Your task to perform on an android device: open app "Adobe Acrobat Reader" (install if not already installed) Image 0: 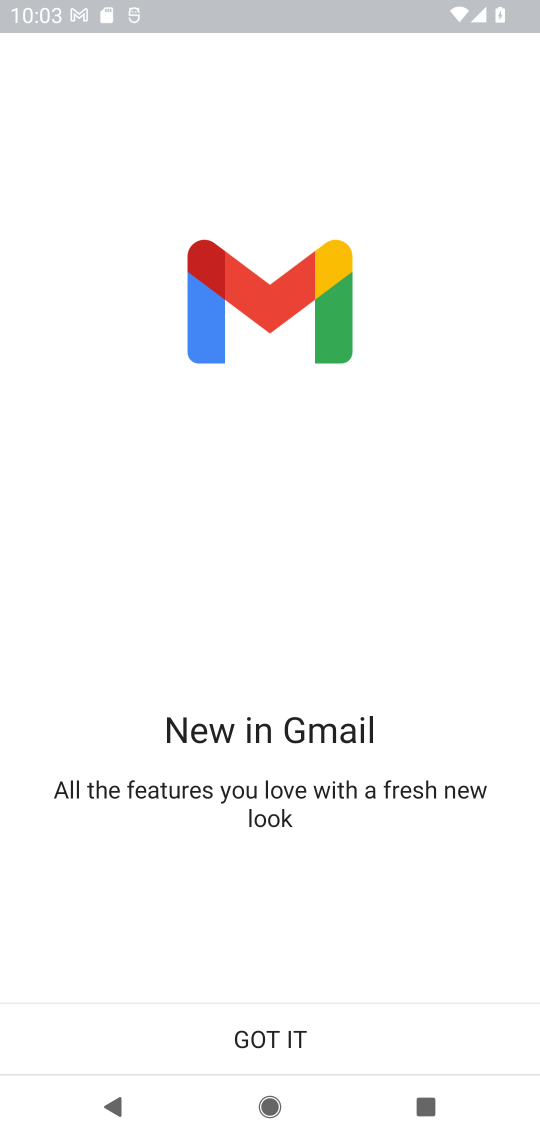
Step 0: press home button
Your task to perform on an android device: open app "Adobe Acrobat Reader" (install if not already installed) Image 1: 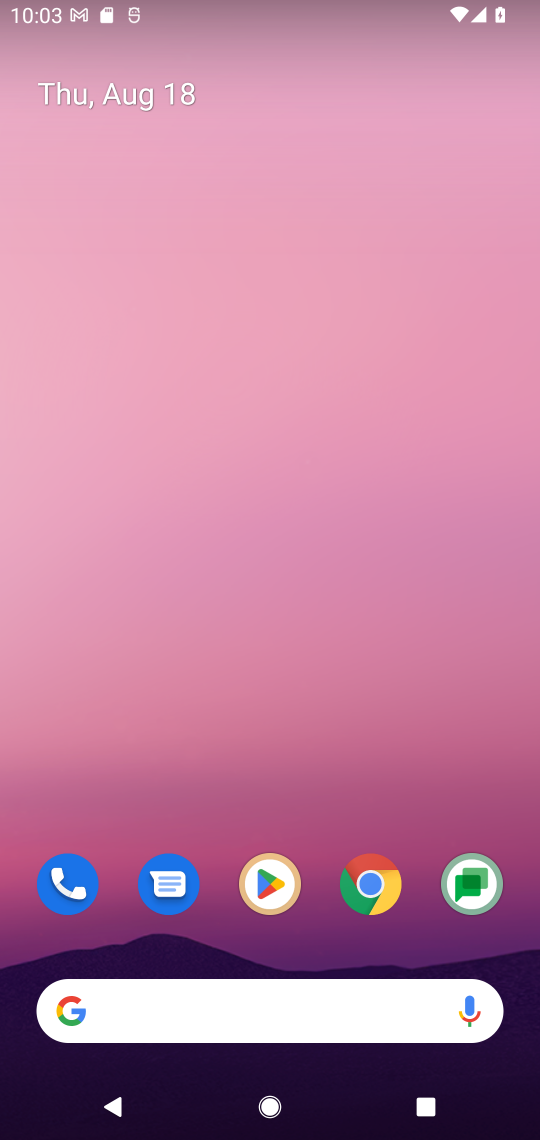
Step 1: click (349, 899)
Your task to perform on an android device: open app "Adobe Acrobat Reader" (install if not already installed) Image 2: 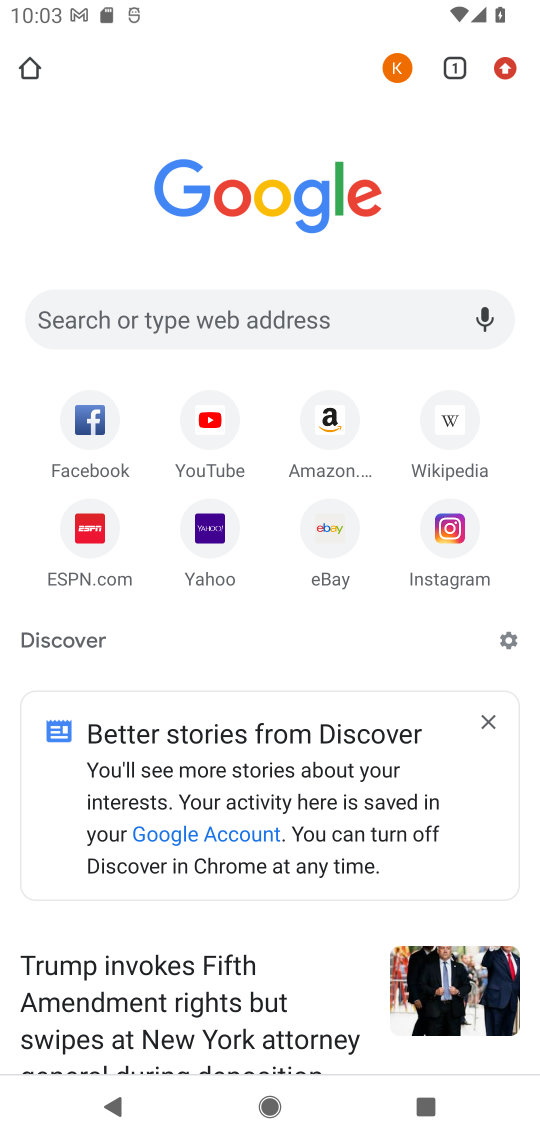
Step 2: press home button
Your task to perform on an android device: open app "Adobe Acrobat Reader" (install if not already installed) Image 3: 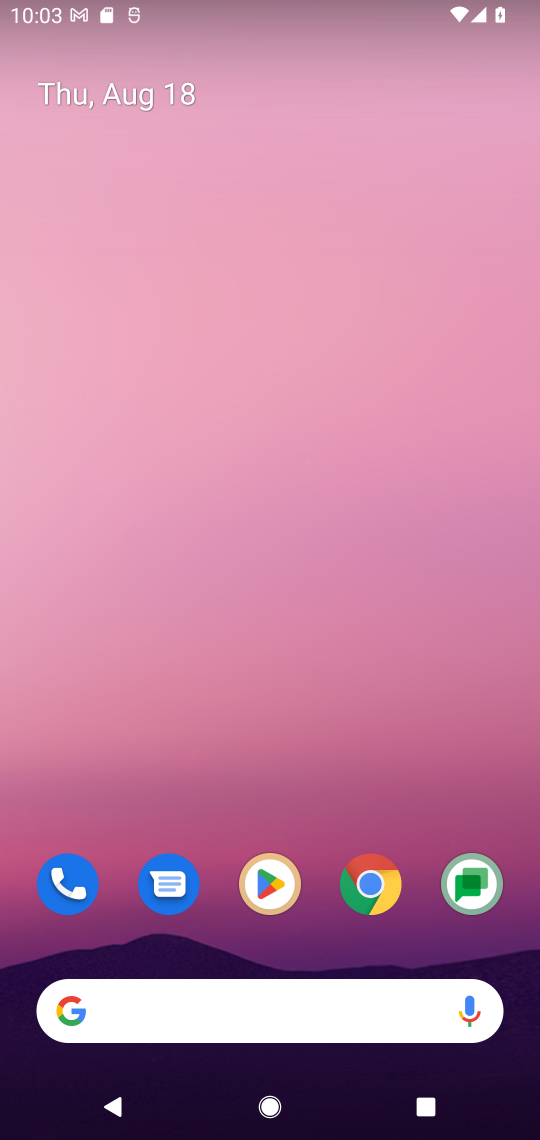
Step 3: click (260, 882)
Your task to perform on an android device: open app "Adobe Acrobat Reader" (install if not already installed) Image 4: 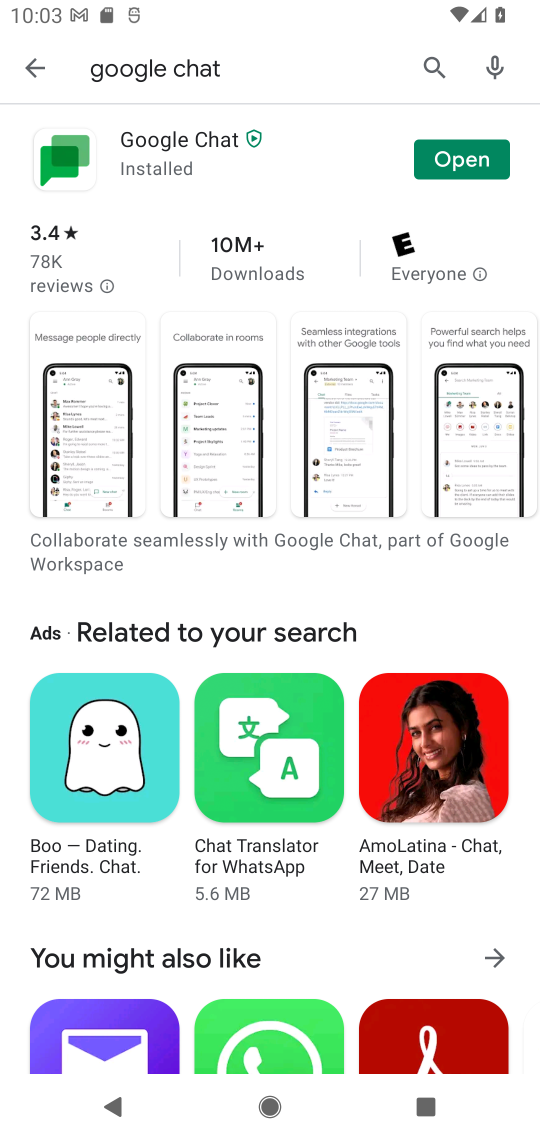
Step 4: click (441, 61)
Your task to perform on an android device: open app "Adobe Acrobat Reader" (install if not already installed) Image 5: 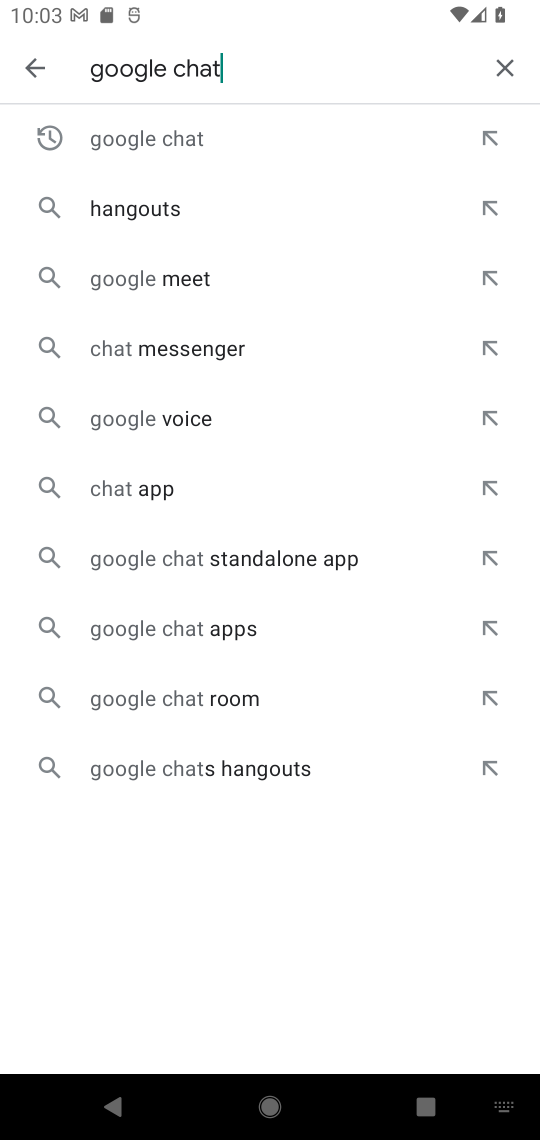
Step 5: click (497, 66)
Your task to perform on an android device: open app "Adobe Acrobat Reader" (install if not already installed) Image 6: 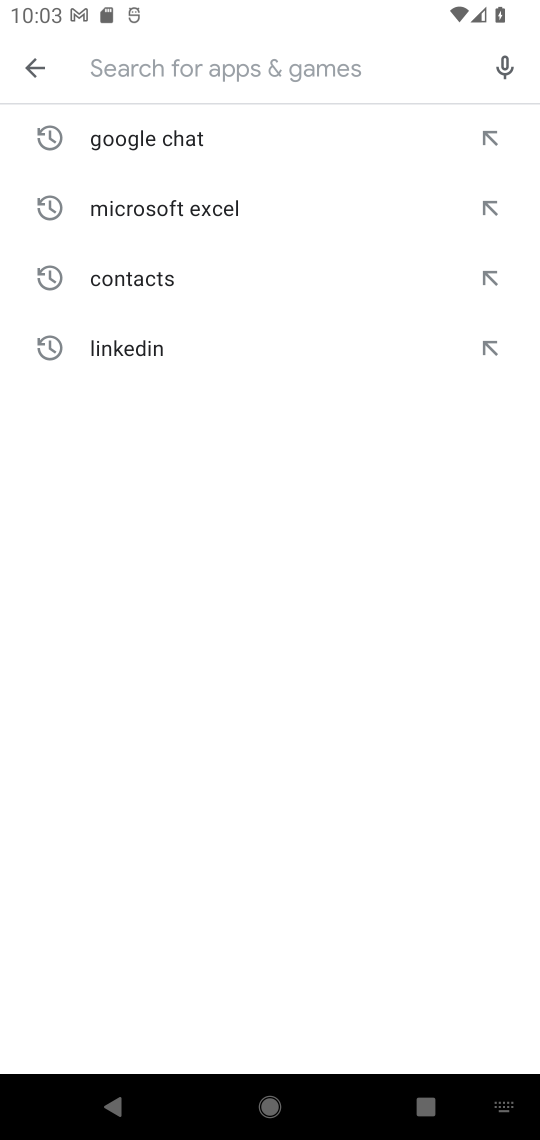
Step 6: type "adobe acrobat reader"
Your task to perform on an android device: open app "Adobe Acrobat Reader" (install if not already installed) Image 7: 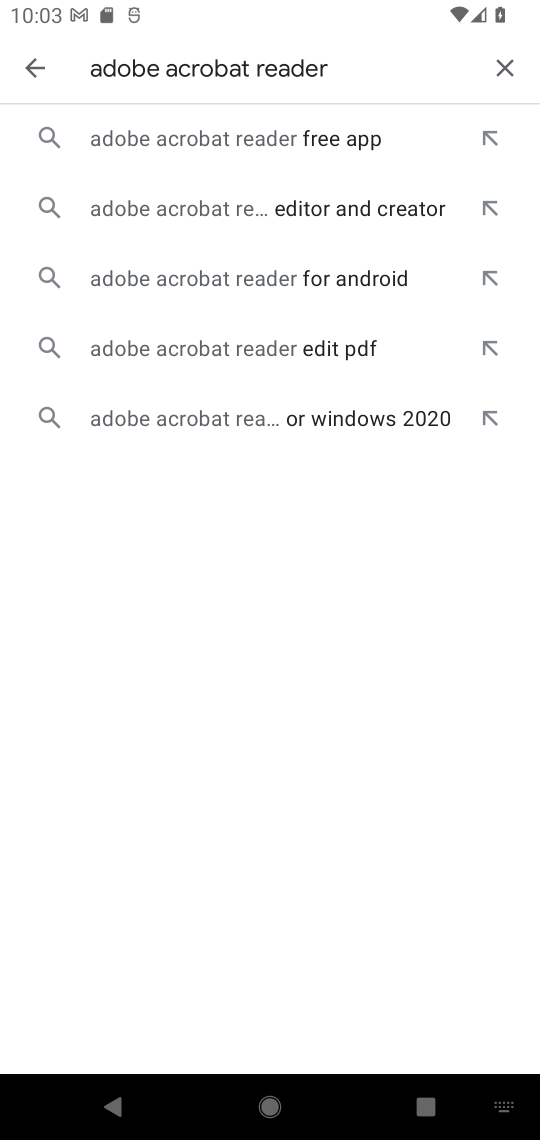
Step 7: click (191, 119)
Your task to perform on an android device: open app "Adobe Acrobat Reader" (install if not already installed) Image 8: 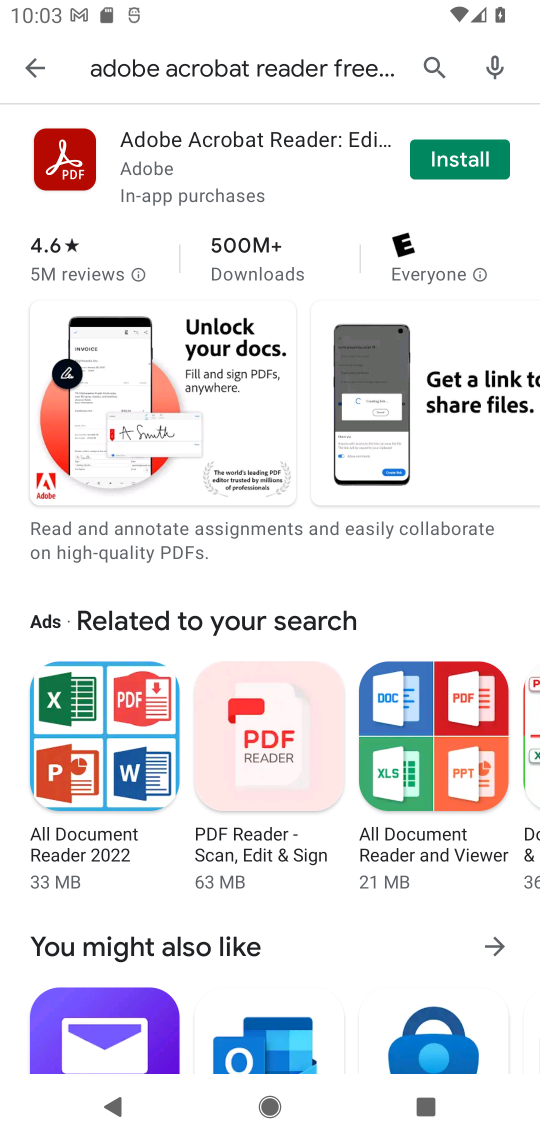
Step 8: click (428, 171)
Your task to perform on an android device: open app "Adobe Acrobat Reader" (install if not already installed) Image 9: 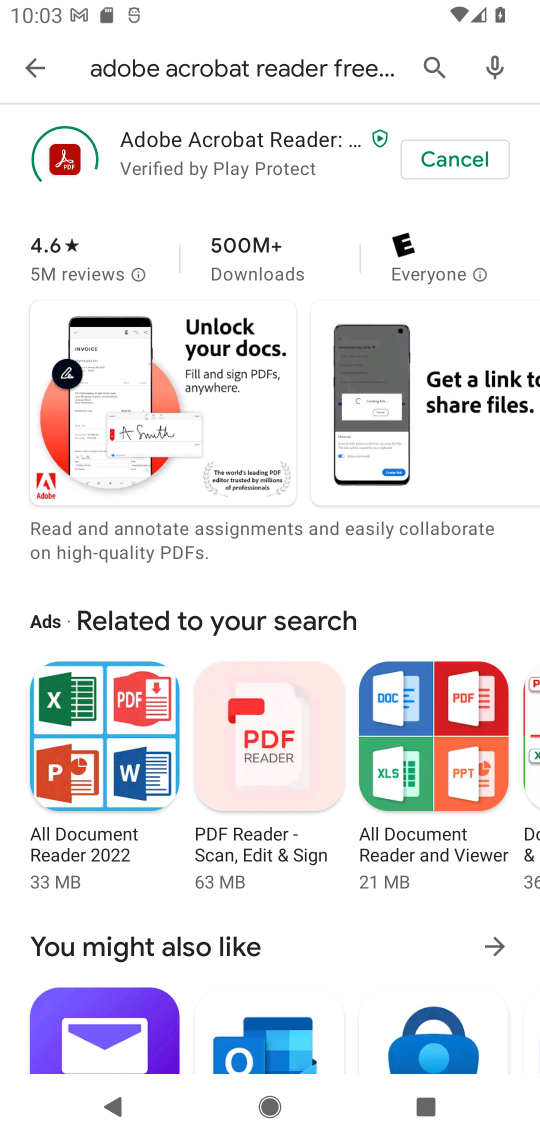
Step 9: task complete